Your task to perform on an android device: turn off improve location accuracy Image 0: 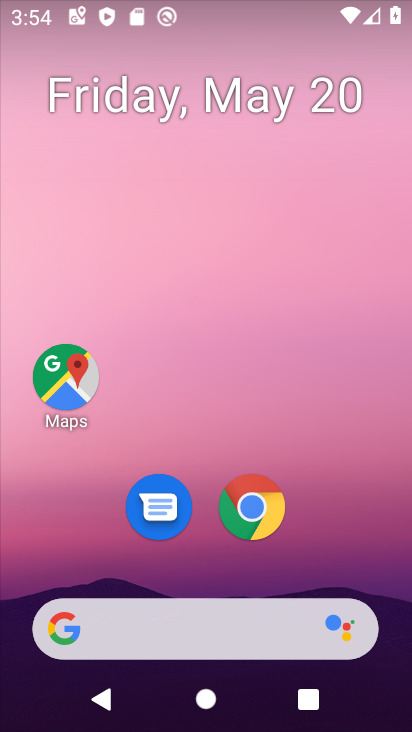
Step 0: drag from (337, 568) to (240, 38)
Your task to perform on an android device: turn off improve location accuracy Image 1: 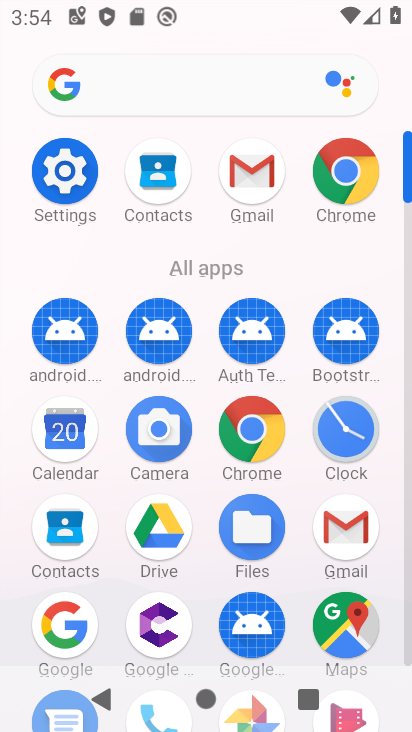
Step 1: click (66, 168)
Your task to perform on an android device: turn off improve location accuracy Image 2: 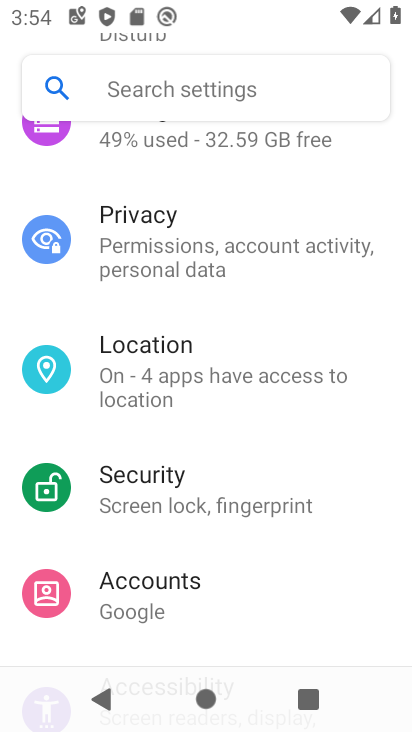
Step 2: click (176, 341)
Your task to perform on an android device: turn off improve location accuracy Image 3: 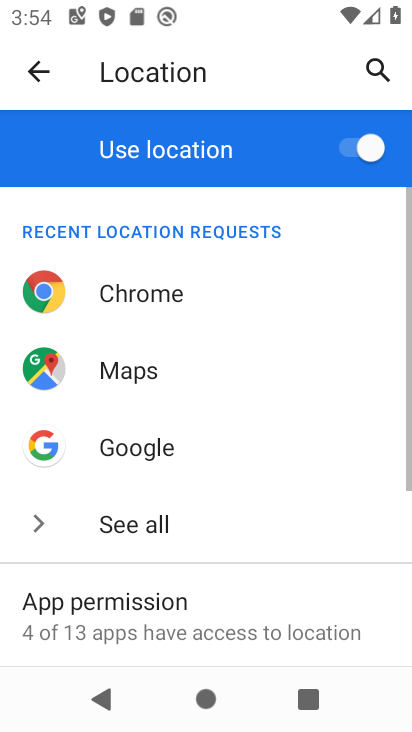
Step 3: drag from (215, 581) to (225, 464)
Your task to perform on an android device: turn off improve location accuracy Image 4: 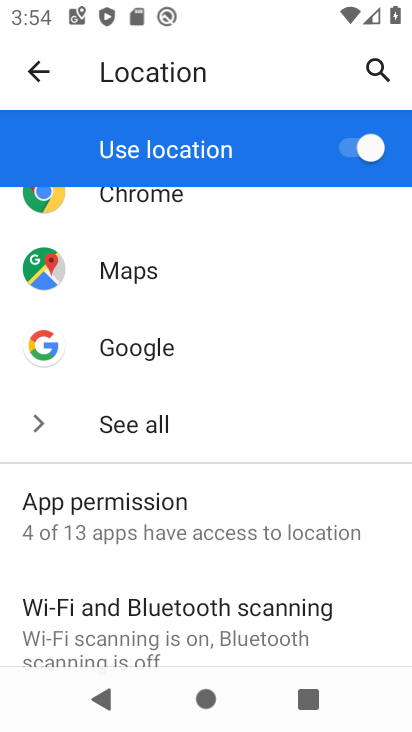
Step 4: drag from (195, 567) to (246, 430)
Your task to perform on an android device: turn off improve location accuracy Image 5: 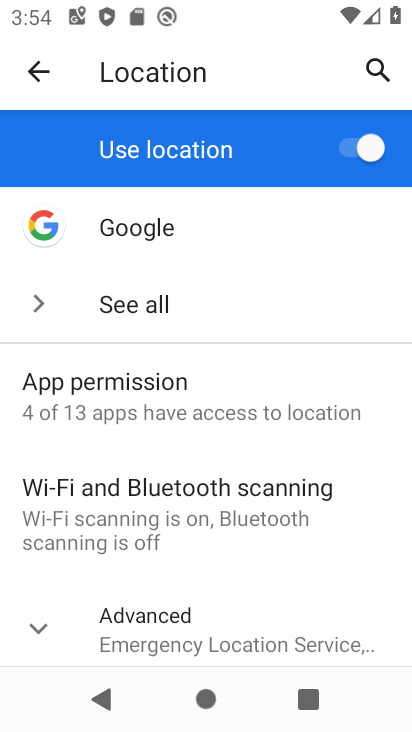
Step 5: drag from (199, 554) to (221, 449)
Your task to perform on an android device: turn off improve location accuracy Image 6: 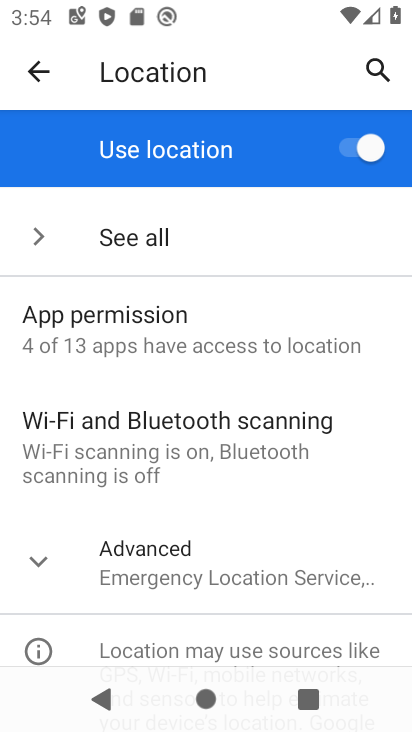
Step 6: click (218, 564)
Your task to perform on an android device: turn off improve location accuracy Image 7: 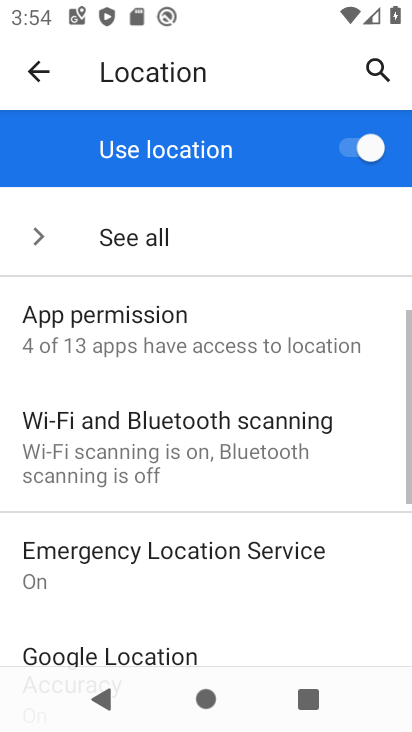
Step 7: drag from (202, 527) to (215, 482)
Your task to perform on an android device: turn off improve location accuracy Image 8: 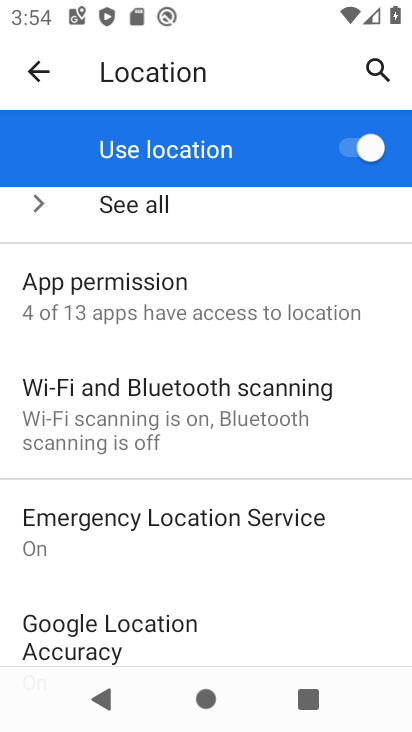
Step 8: click (148, 612)
Your task to perform on an android device: turn off improve location accuracy Image 9: 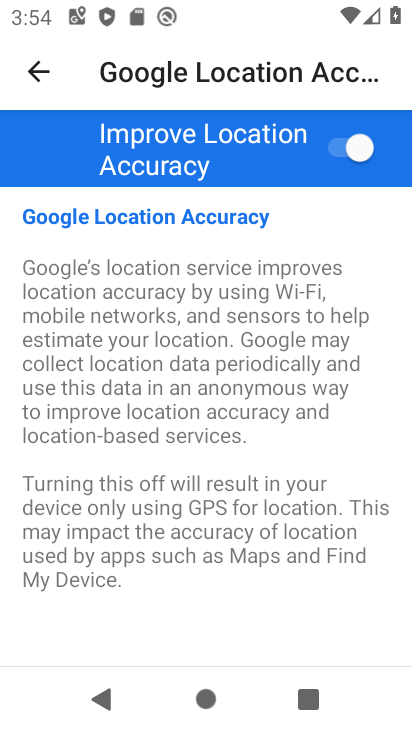
Step 9: click (333, 143)
Your task to perform on an android device: turn off improve location accuracy Image 10: 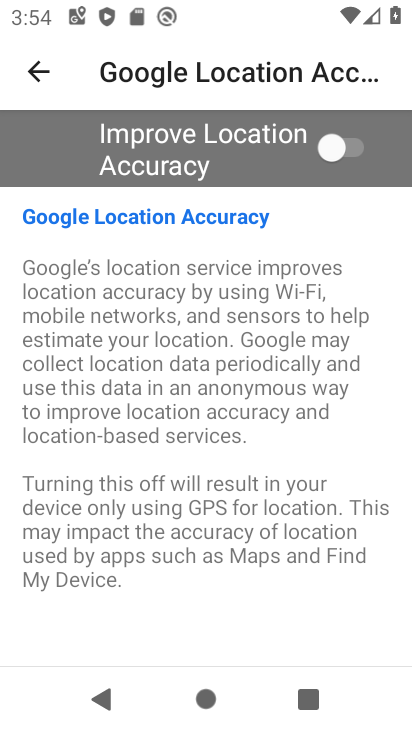
Step 10: task complete